Your task to perform on an android device: turn off picture-in-picture Image 0: 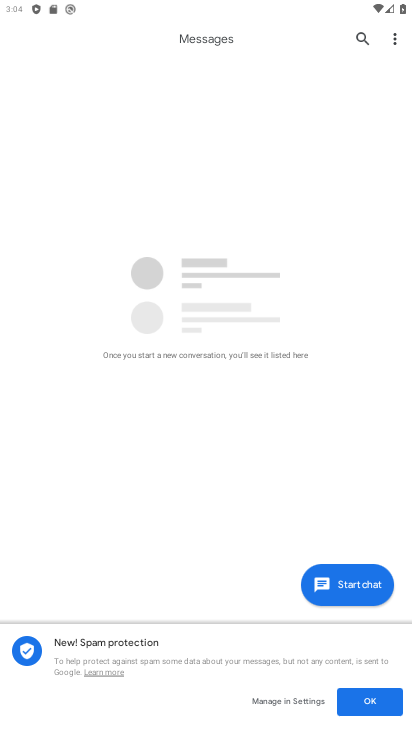
Step 0: press back button
Your task to perform on an android device: turn off picture-in-picture Image 1: 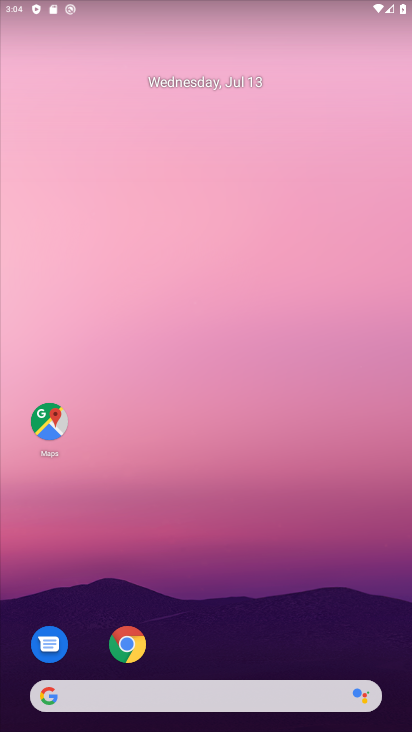
Step 1: drag from (274, 556) to (253, 21)
Your task to perform on an android device: turn off picture-in-picture Image 2: 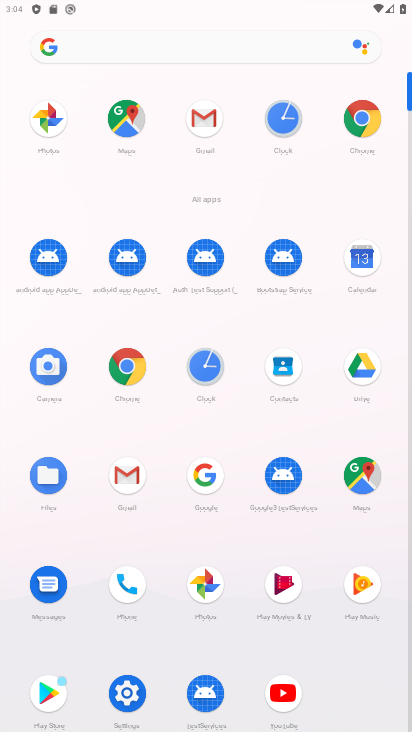
Step 2: click (129, 684)
Your task to perform on an android device: turn off picture-in-picture Image 3: 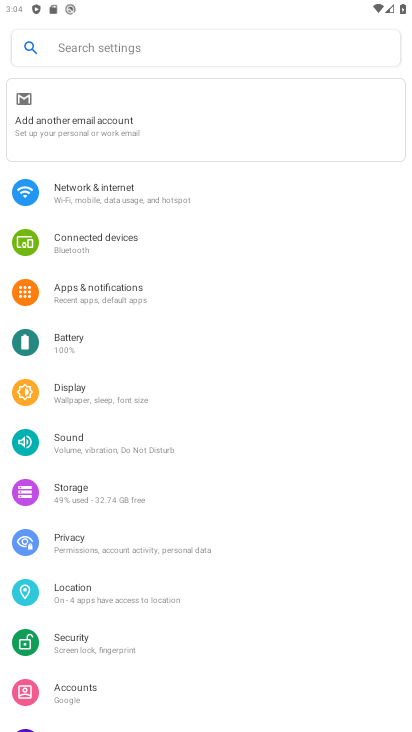
Step 3: click (140, 281)
Your task to perform on an android device: turn off picture-in-picture Image 4: 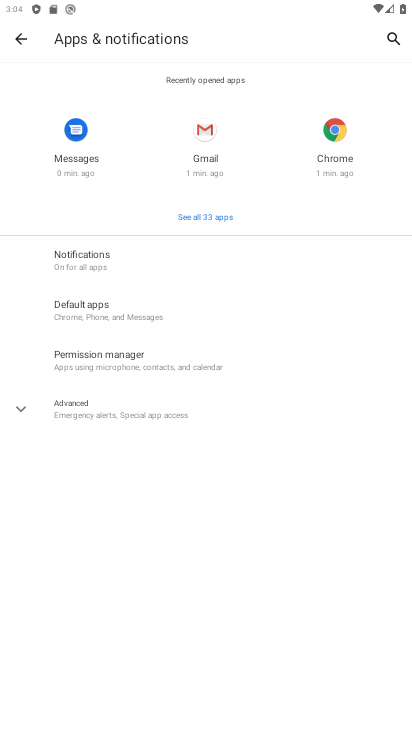
Step 4: click (76, 406)
Your task to perform on an android device: turn off picture-in-picture Image 5: 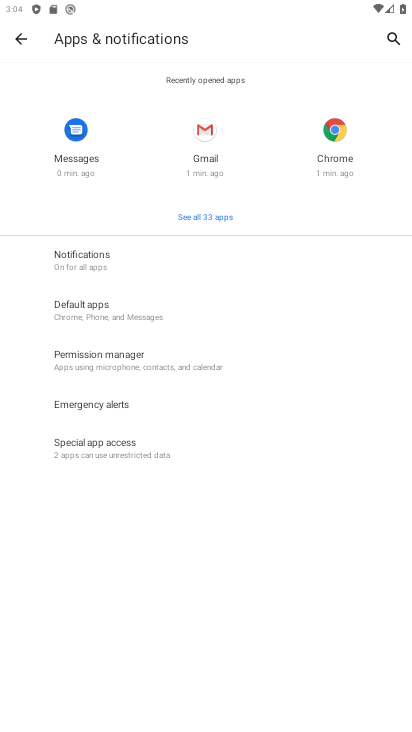
Step 5: click (114, 457)
Your task to perform on an android device: turn off picture-in-picture Image 6: 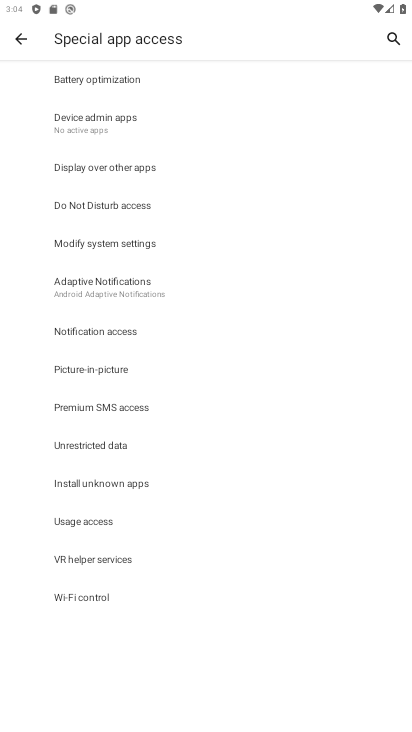
Step 6: click (85, 366)
Your task to perform on an android device: turn off picture-in-picture Image 7: 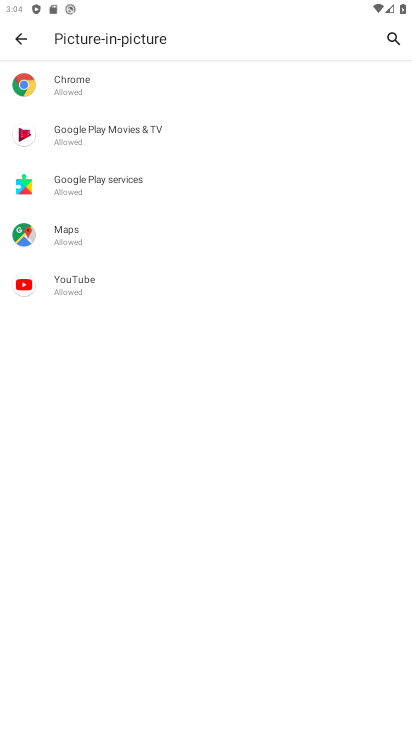
Step 7: click (76, 86)
Your task to perform on an android device: turn off picture-in-picture Image 8: 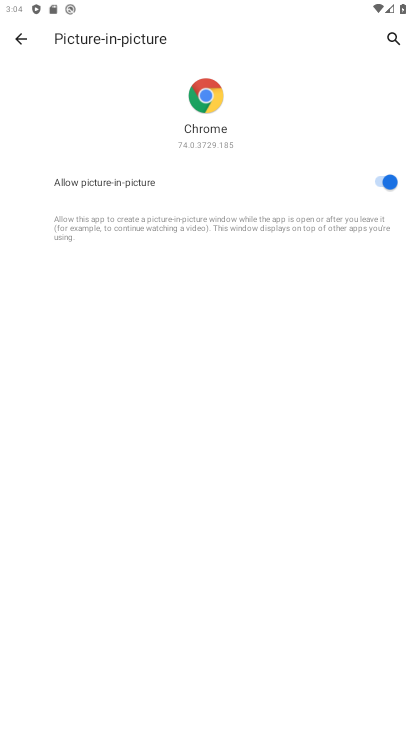
Step 8: click (384, 182)
Your task to perform on an android device: turn off picture-in-picture Image 9: 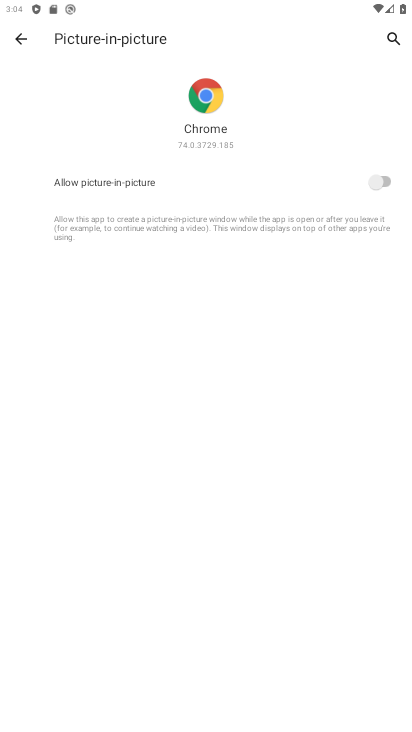
Step 9: task complete